Your task to perform on an android device: Open sound settings Image 0: 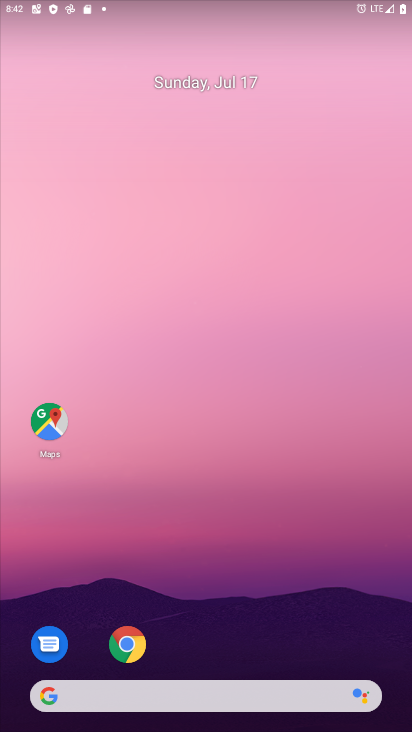
Step 0: drag from (164, 608) to (171, 191)
Your task to perform on an android device: Open sound settings Image 1: 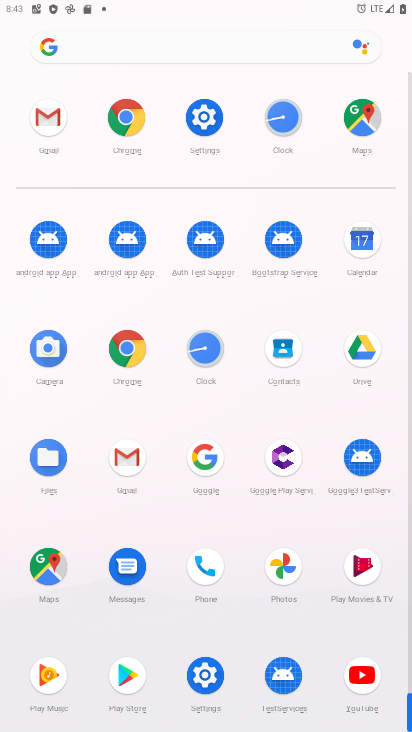
Step 1: click (202, 122)
Your task to perform on an android device: Open sound settings Image 2: 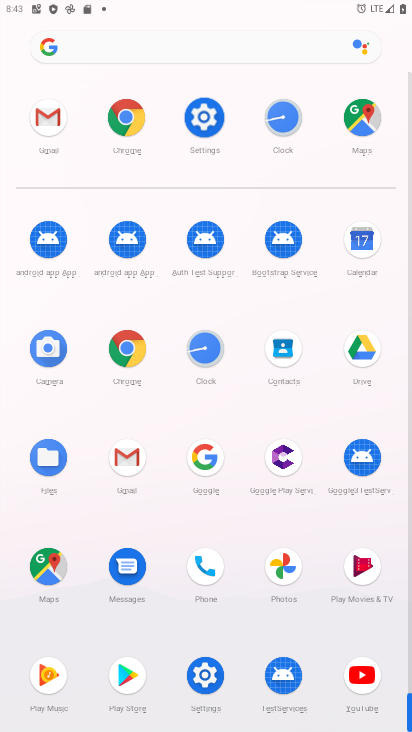
Step 2: click (202, 122)
Your task to perform on an android device: Open sound settings Image 3: 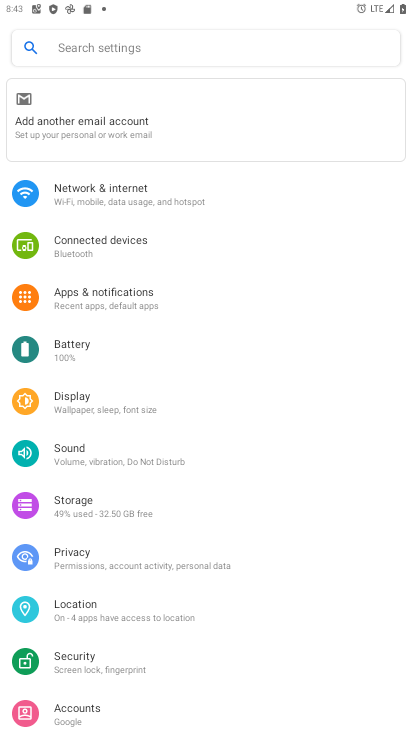
Step 3: click (69, 453)
Your task to perform on an android device: Open sound settings Image 4: 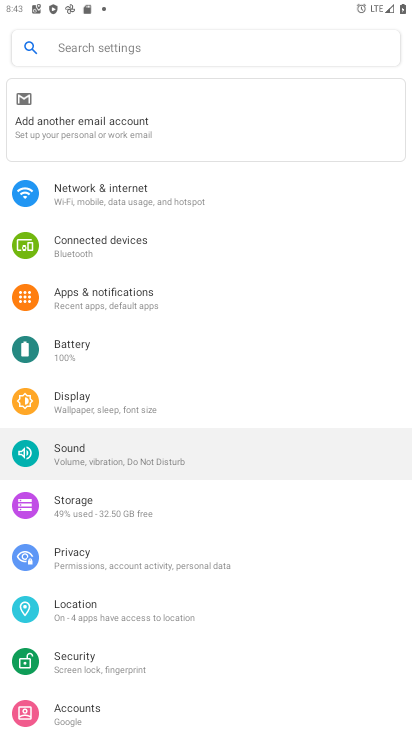
Step 4: click (69, 453)
Your task to perform on an android device: Open sound settings Image 5: 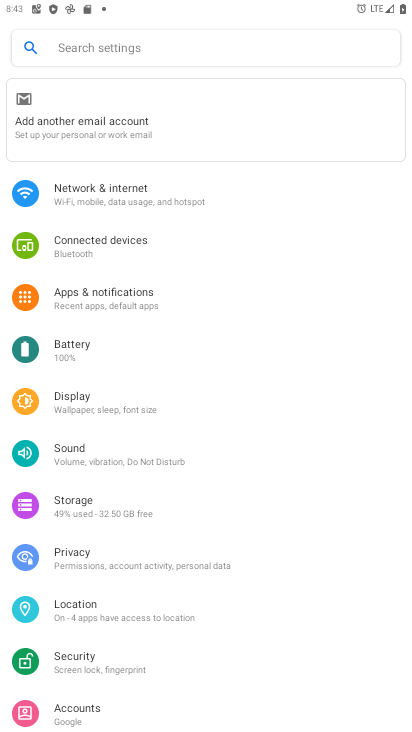
Step 5: click (69, 453)
Your task to perform on an android device: Open sound settings Image 6: 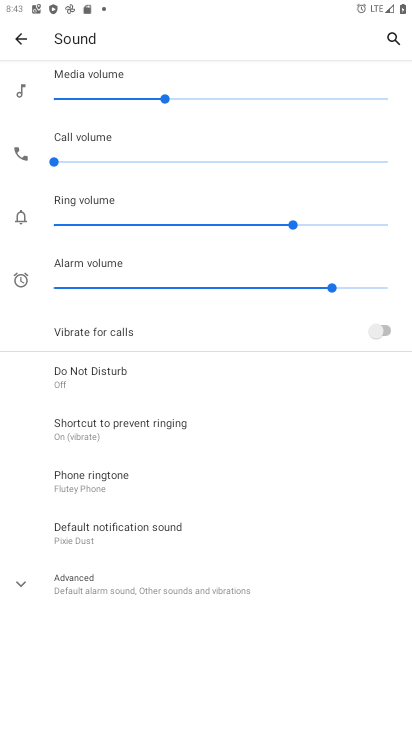
Step 6: task complete